Your task to perform on an android device: toggle sleep mode Image 0: 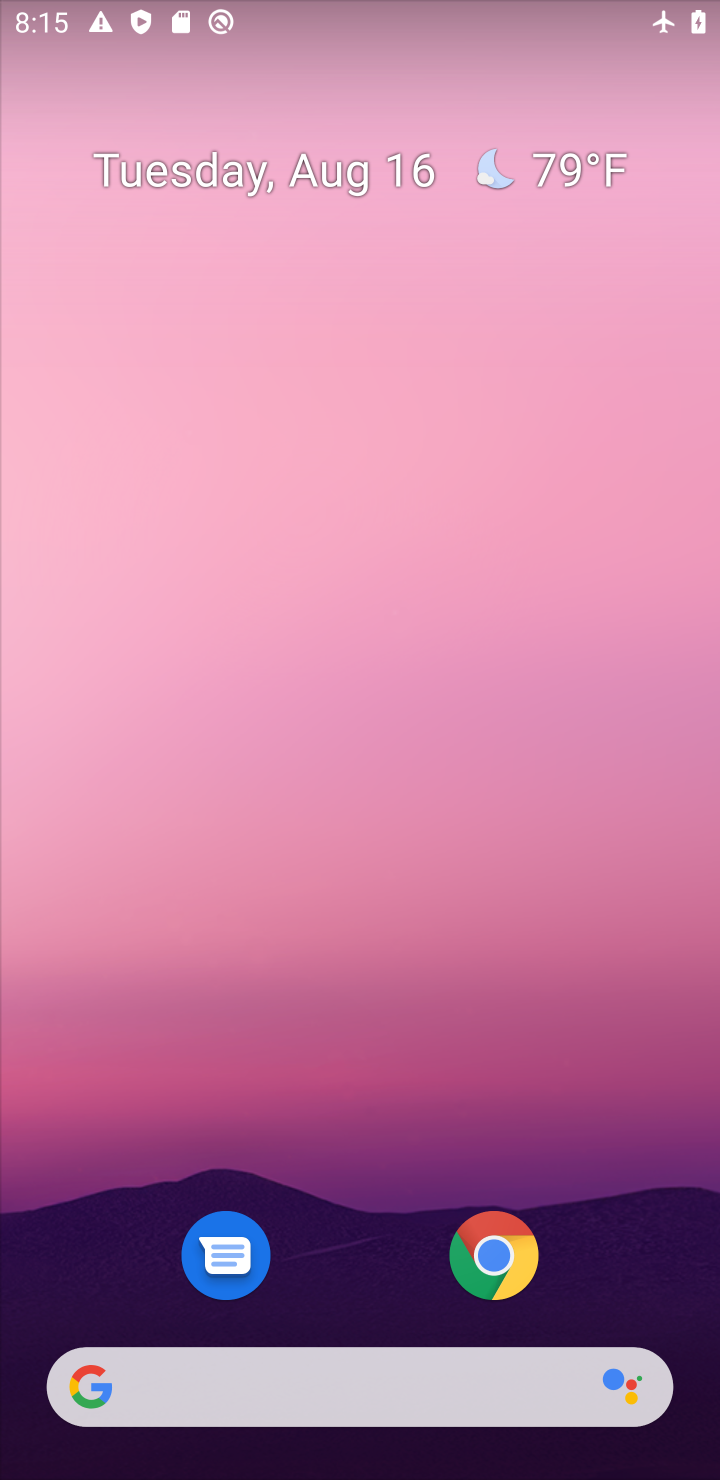
Step 0: drag from (392, 1353) to (323, 30)
Your task to perform on an android device: toggle sleep mode Image 1: 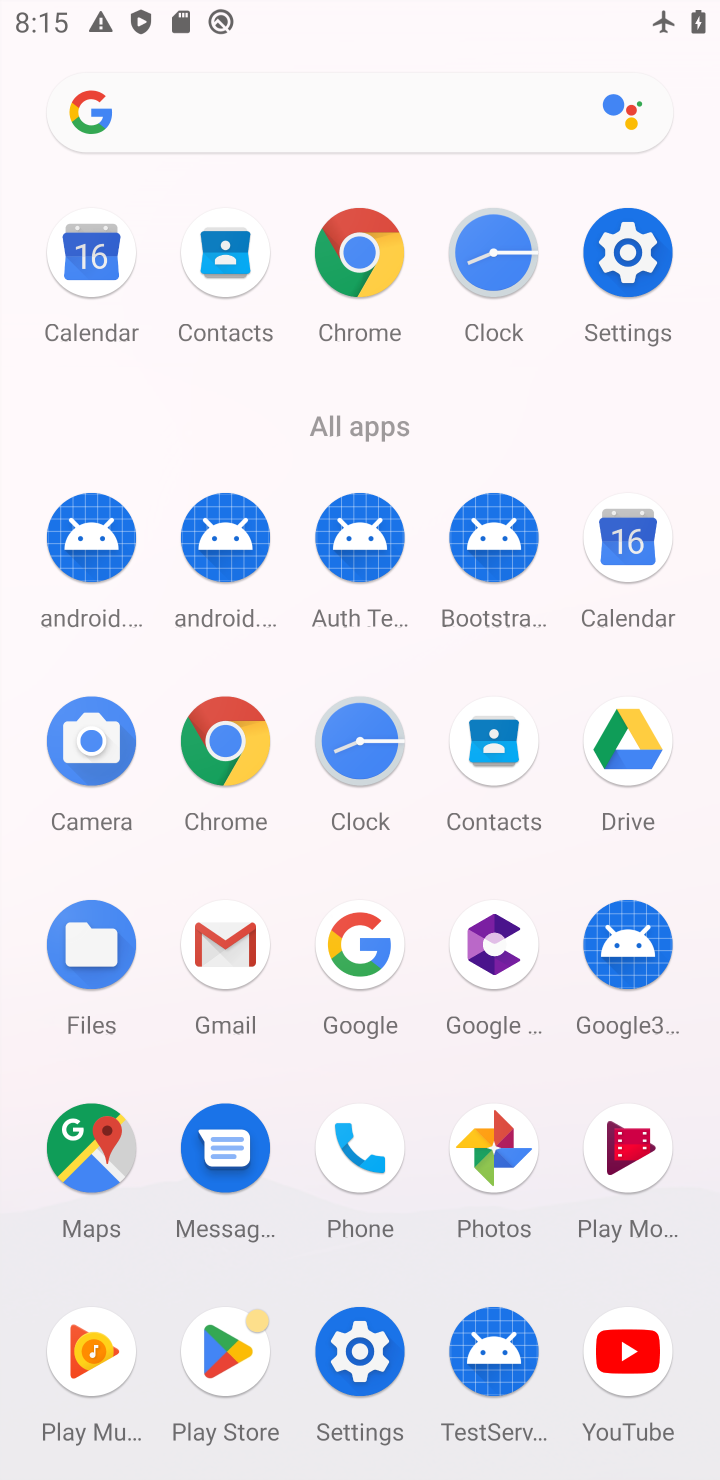
Step 1: click (620, 224)
Your task to perform on an android device: toggle sleep mode Image 2: 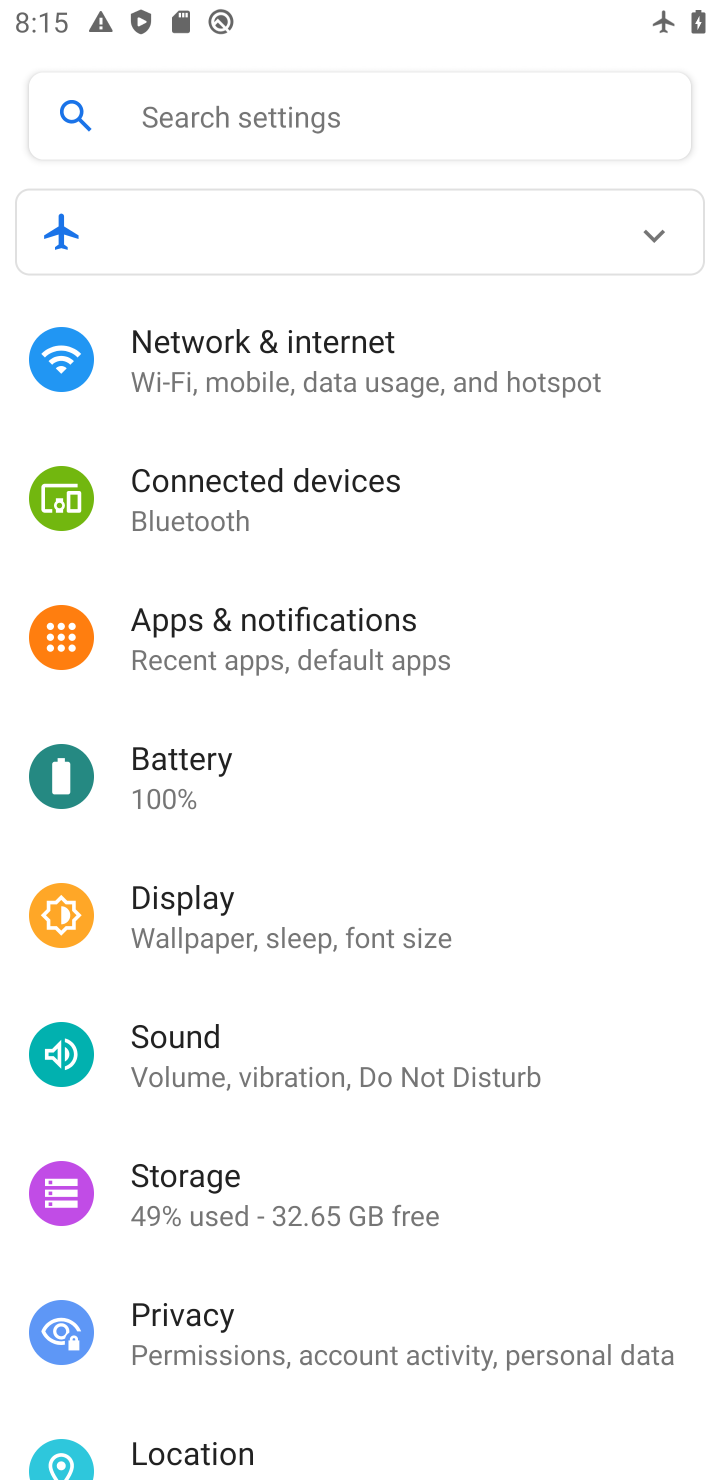
Step 2: click (294, 918)
Your task to perform on an android device: toggle sleep mode Image 3: 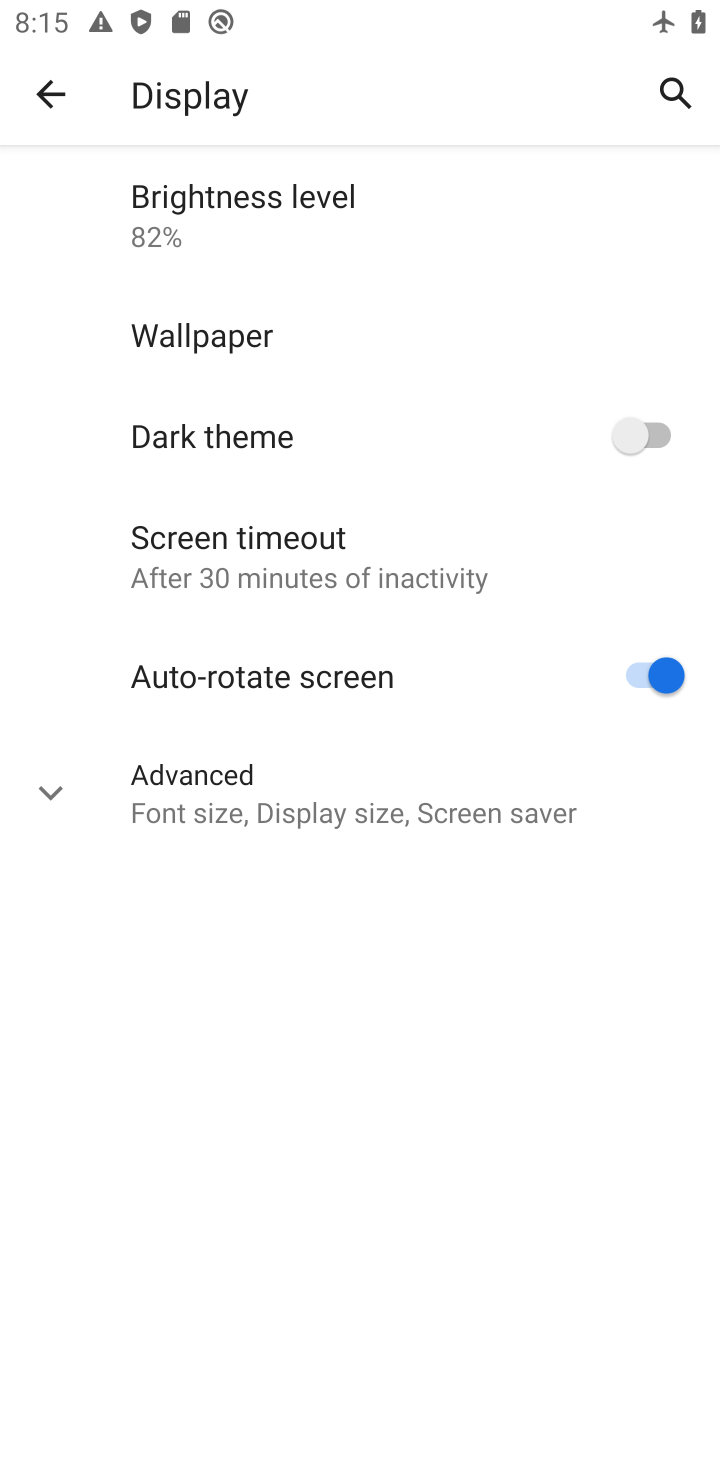
Step 3: click (219, 801)
Your task to perform on an android device: toggle sleep mode Image 4: 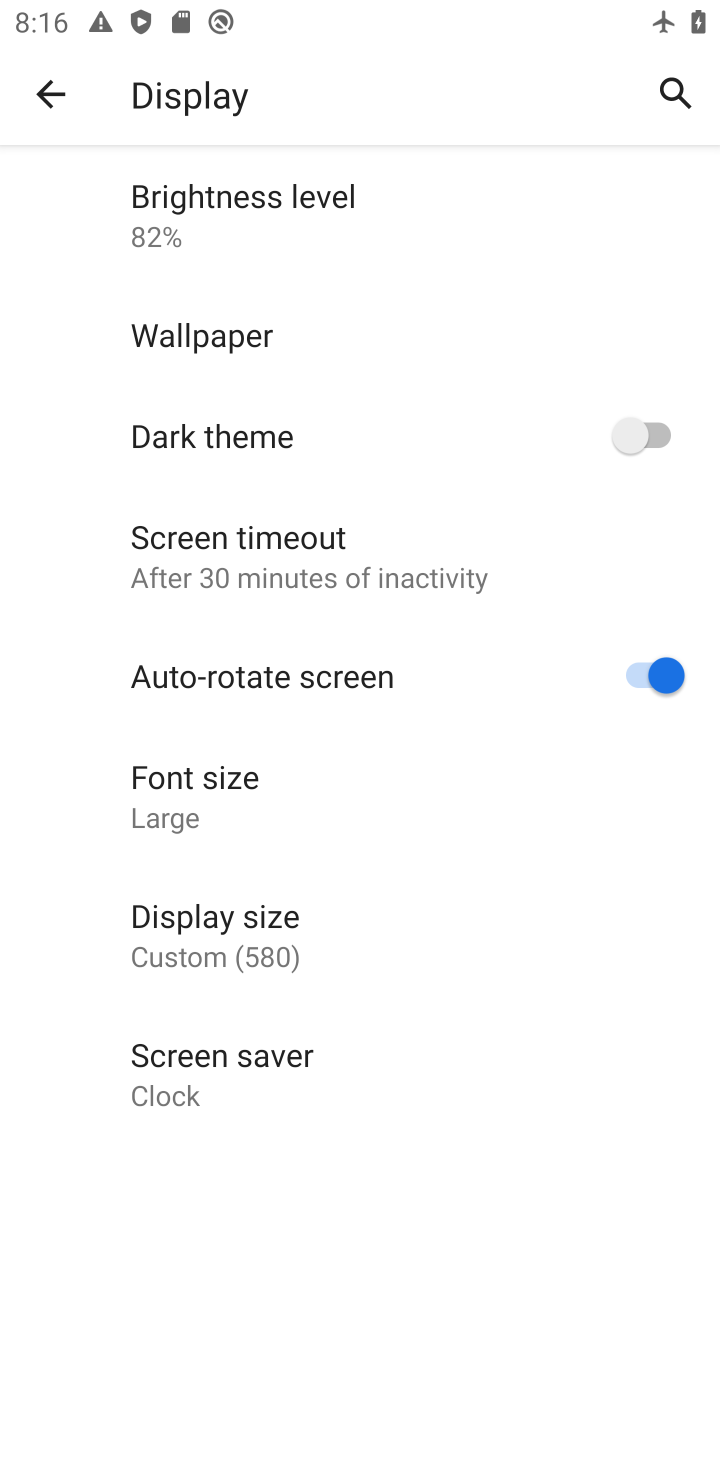
Step 4: task complete